Your task to perform on an android device: make emails show in primary in the gmail app Image 0: 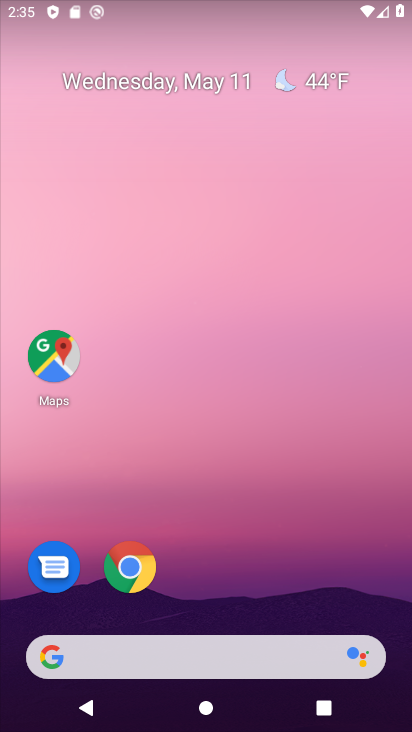
Step 0: drag from (267, 499) to (237, 46)
Your task to perform on an android device: make emails show in primary in the gmail app Image 1: 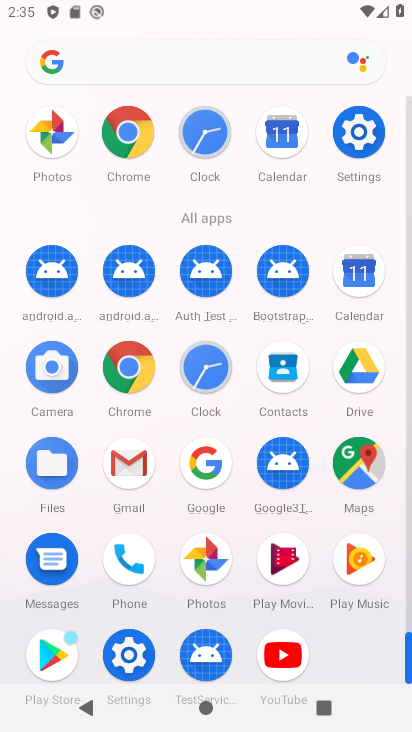
Step 1: drag from (4, 602) to (31, 296)
Your task to perform on an android device: make emails show in primary in the gmail app Image 2: 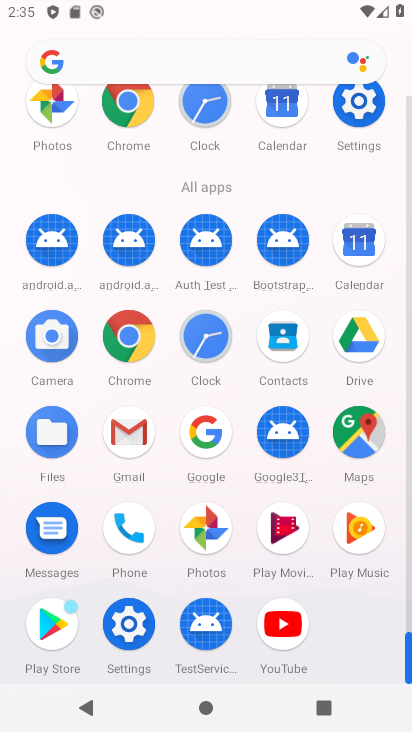
Step 2: click (125, 426)
Your task to perform on an android device: make emails show in primary in the gmail app Image 3: 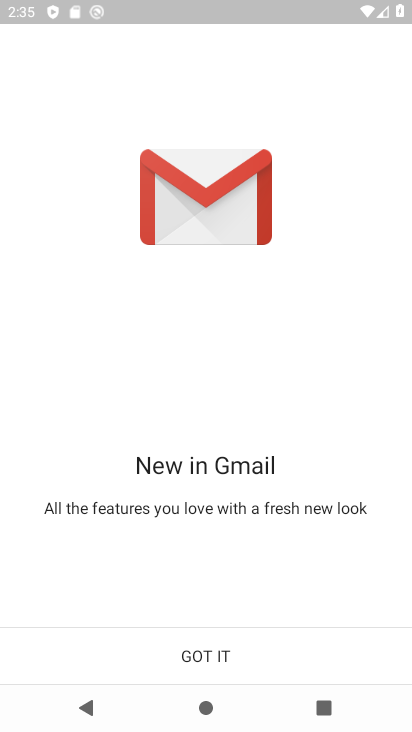
Step 3: click (204, 655)
Your task to perform on an android device: make emails show in primary in the gmail app Image 4: 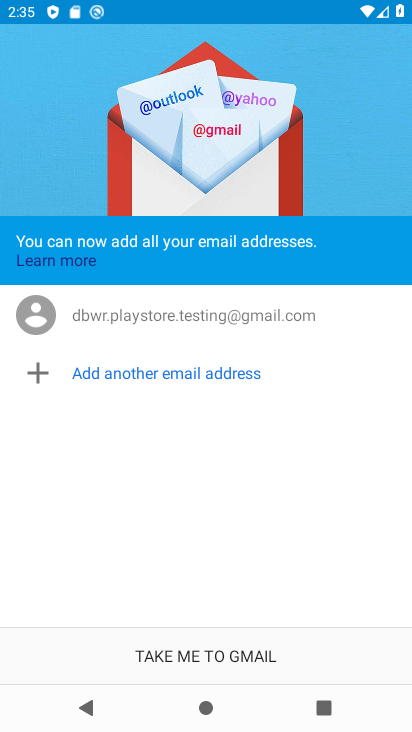
Step 4: click (201, 649)
Your task to perform on an android device: make emails show in primary in the gmail app Image 5: 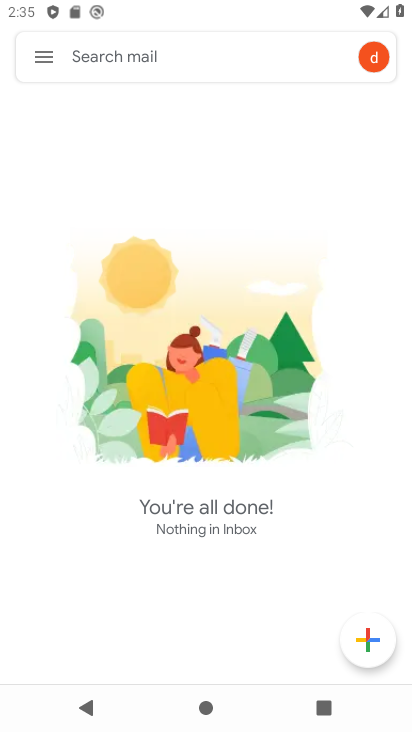
Step 5: click (43, 55)
Your task to perform on an android device: make emails show in primary in the gmail app Image 6: 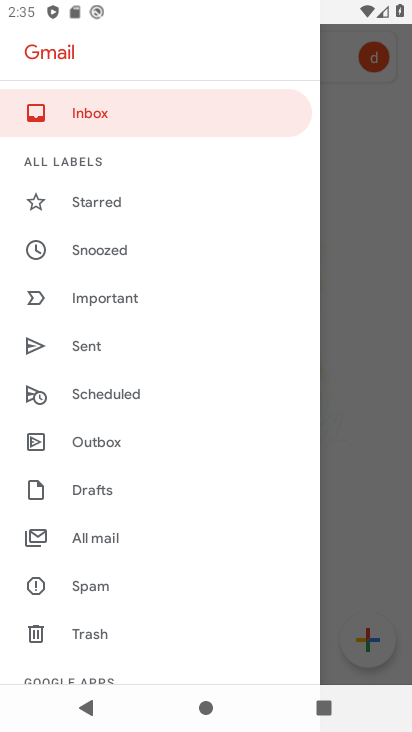
Step 6: drag from (141, 597) to (228, 156)
Your task to perform on an android device: make emails show in primary in the gmail app Image 7: 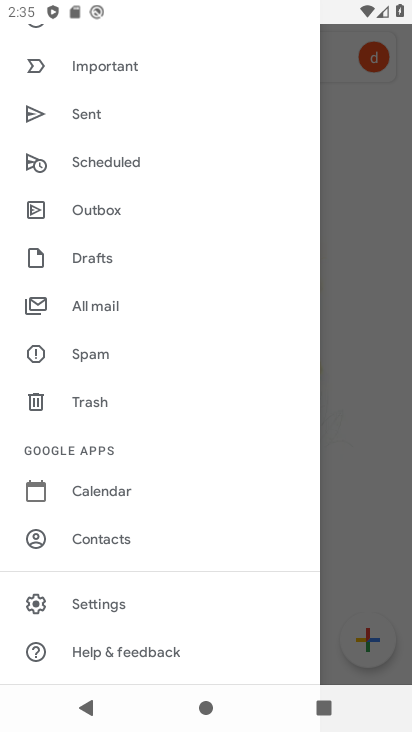
Step 7: drag from (137, 143) to (150, 507)
Your task to perform on an android device: make emails show in primary in the gmail app Image 8: 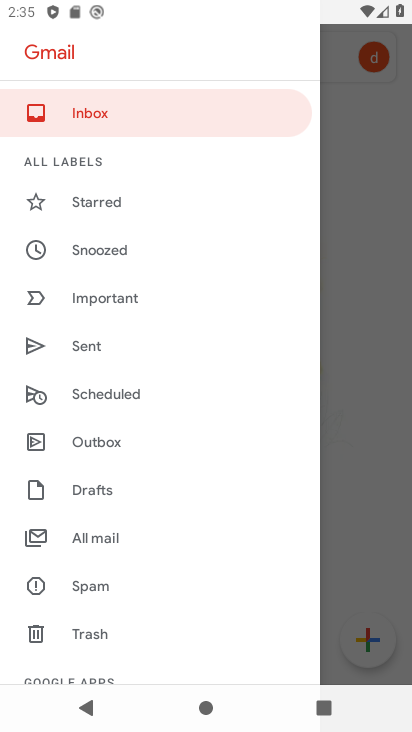
Step 8: drag from (172, 480) to (181, 297)
Your task to perform on an android device: make emails show in primary in the gmail app Image 9: 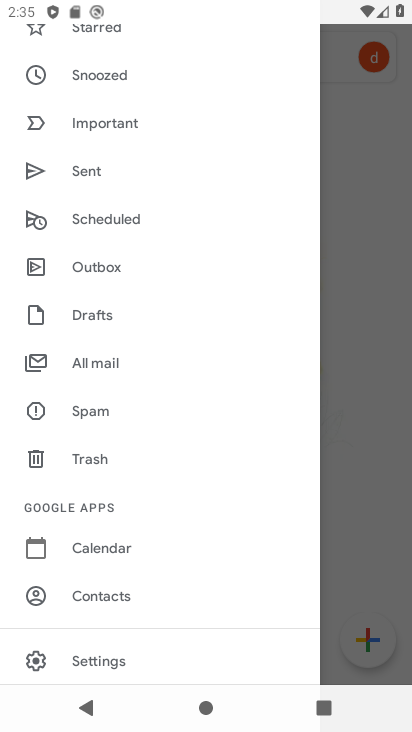
Step 9: drag from (171, 226) to (160, 495)
Your task to perform on an android device: make emails show in primary in the gmail app Image 10: 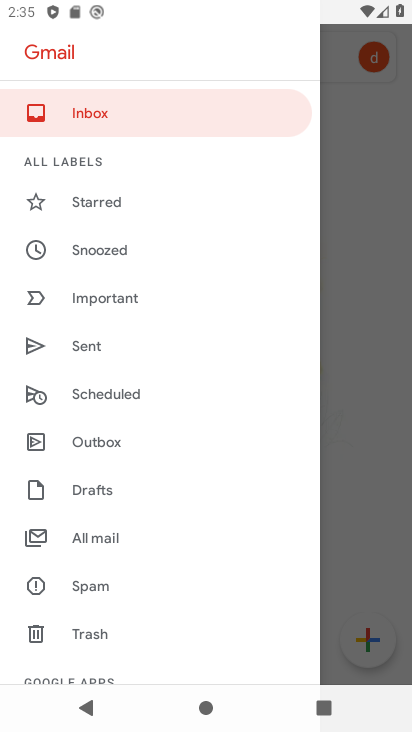
Step 10: drag from (137, 575) to (176, 124)
Your task to perform on an android device: make emails show in primary in the gmail app Image 11: 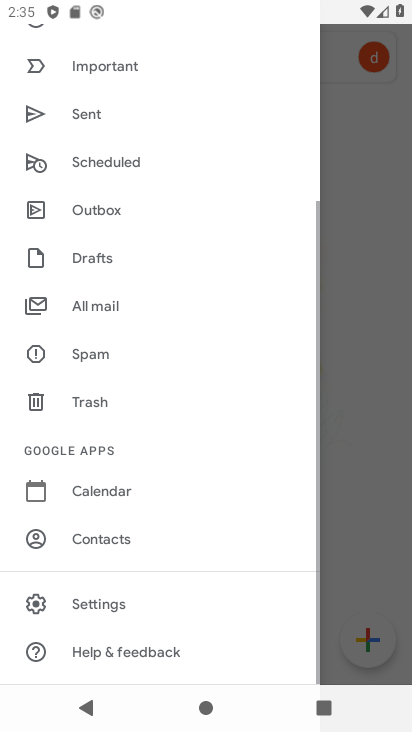
Step 11: click (86, 610)
Your task to perform on an android device: make emails show in primary in the gmail app Image 12: 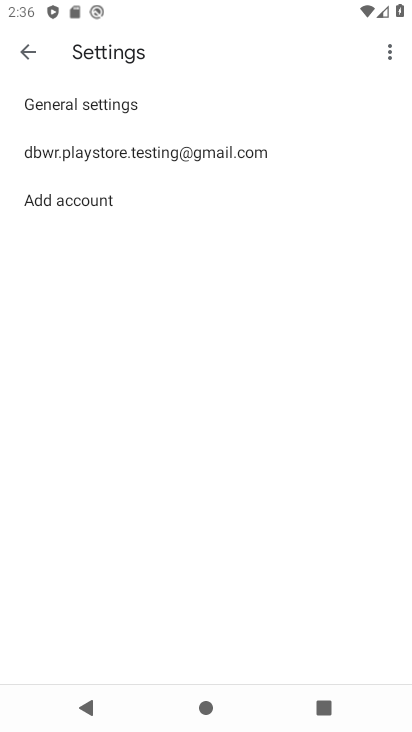
Step 12: click (108, 104)
Your task to perform on an android device: make emails show in primary in the gmail app Image 13: 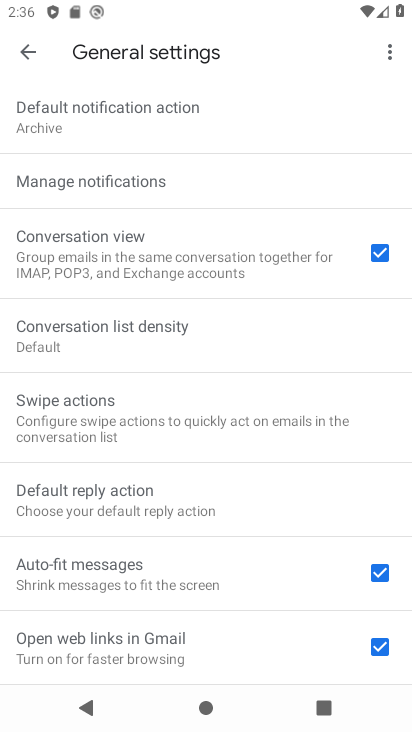
Step 13: drag from (143, 519) to (186, 163)
Your task to perform on an android device: make emails show in primary in the gmail app Image 14: 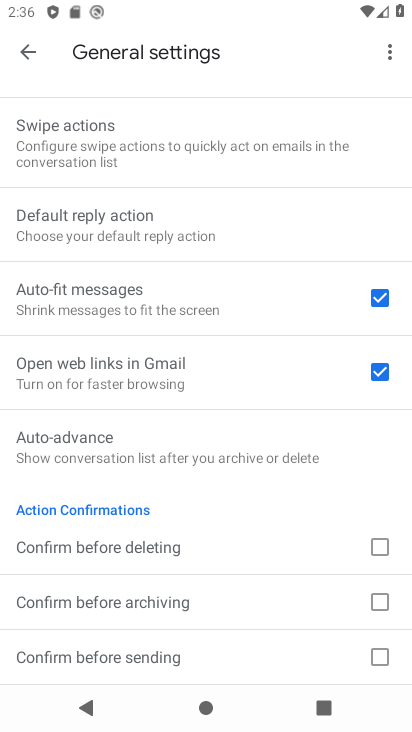
Step 14: drag from (194, 559) to (202, 123)
Your task to perform on an android device: make emails show in primary in the gmail app Image 15: 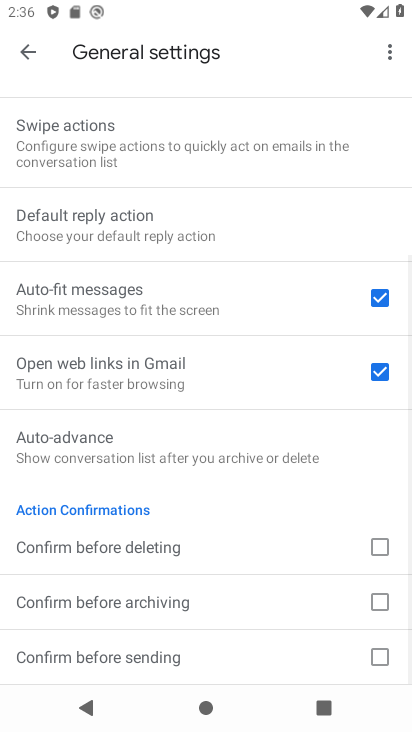
Step 15: drag from (178, 590) to (209, 73)
Your task to perform on an android device: make emails show in primary in the gmail app Image 16: 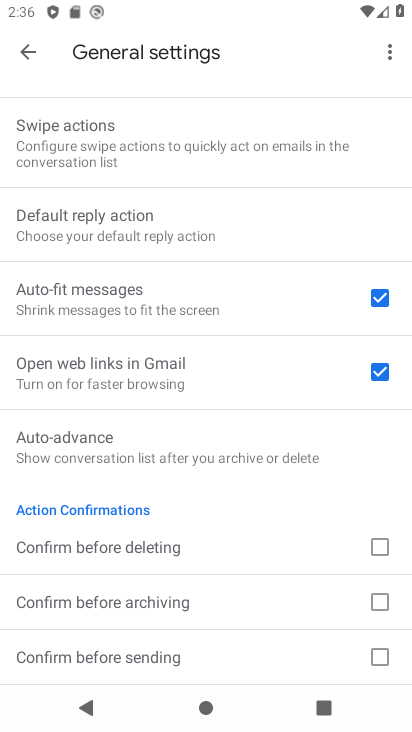
Step 16: drag from (171, 537) to (183, 146)
Your task to perform on an android device: make emails show in primary in the gmail app Image 17: 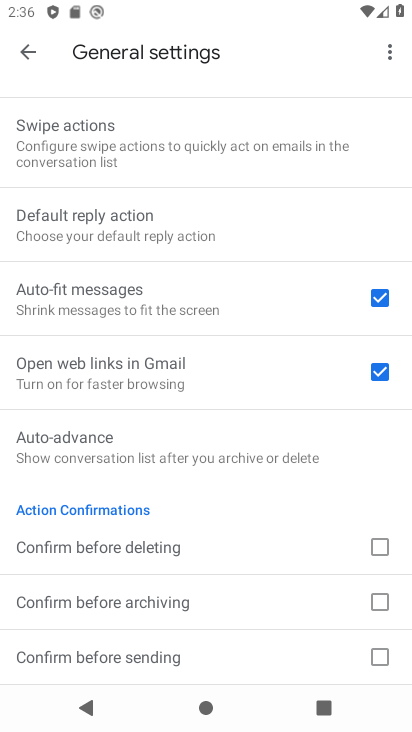
Step 17: drag from (203, 209) to (192, 657)
Your task to perform on an android device: make emails show in primary in the gmail app Image 18: 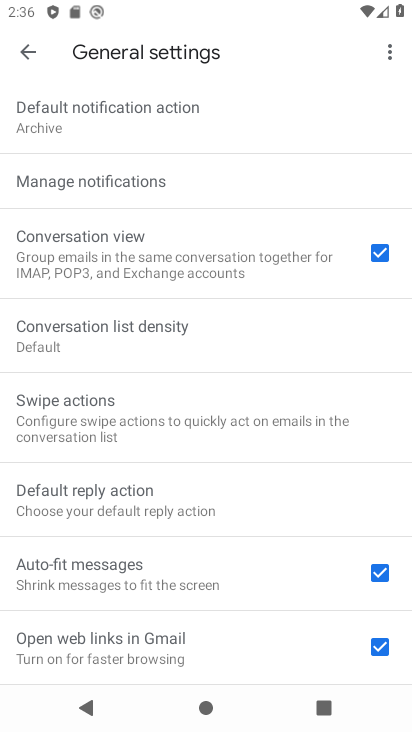
Step 18: drag from (218, 182) to (210, 474)
Your task to perform on an android device: make emails show in primary in the gmail app Image 19: 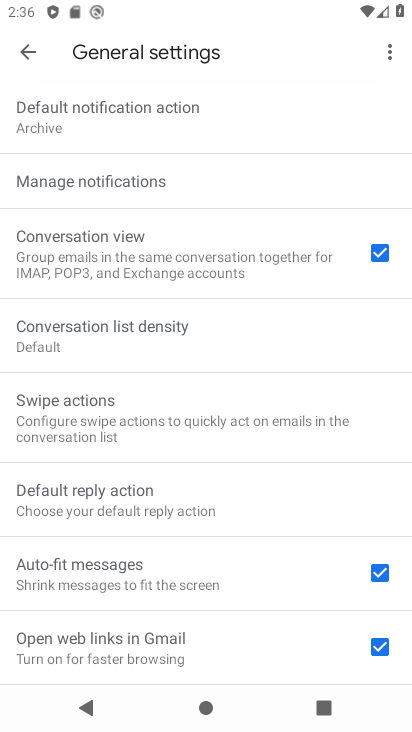
Step 19: click (142, 165)
Your task to perform on an android device: make emails show in primary in the gmail app Image 20: 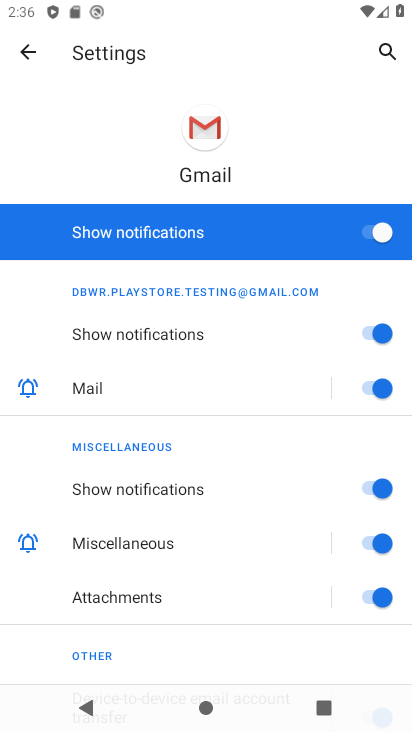
Step 20: click (195, 564)
Your task to perform on an android device: make emails show in primary in the gmail app Image 21: 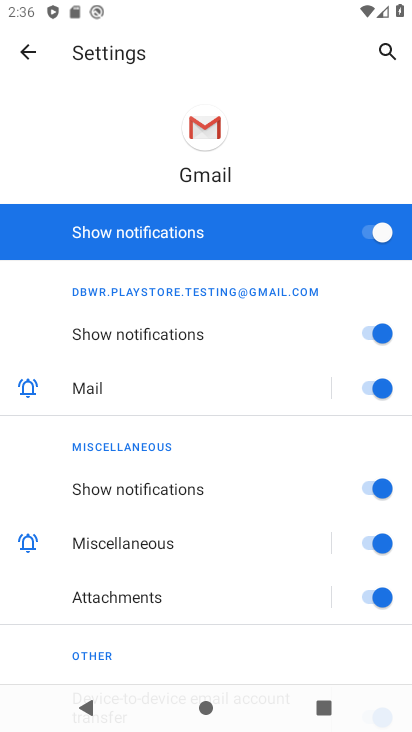
Step 21: click (13, 50)
Your task to perform on an android device: make emails show in primary in the gmail app Image 22: 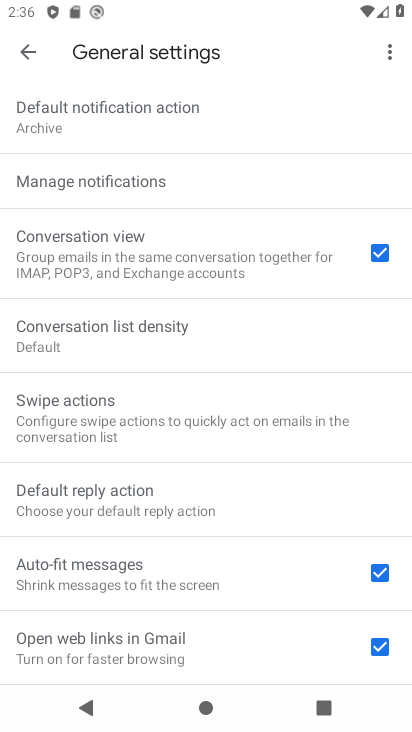
Step 22: drag from (165, 141) to (162, 555)
Your task to perform on an android device: make emails show in primary in the gmail app Image 23: 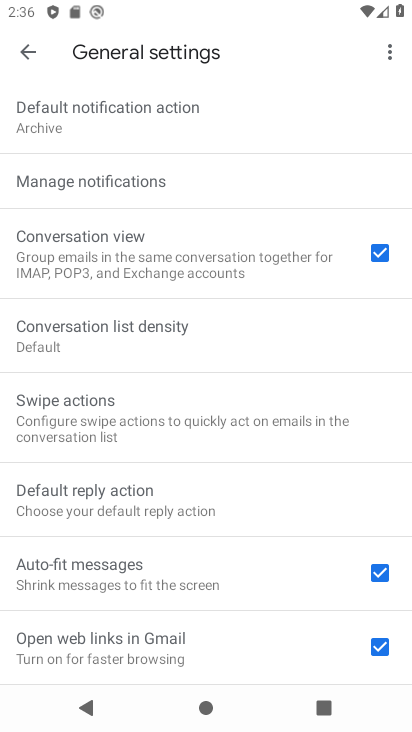
Step 23: click (33, 49)
Your task to perform on an android device: make emails show in primary in the gmail app Image 24: 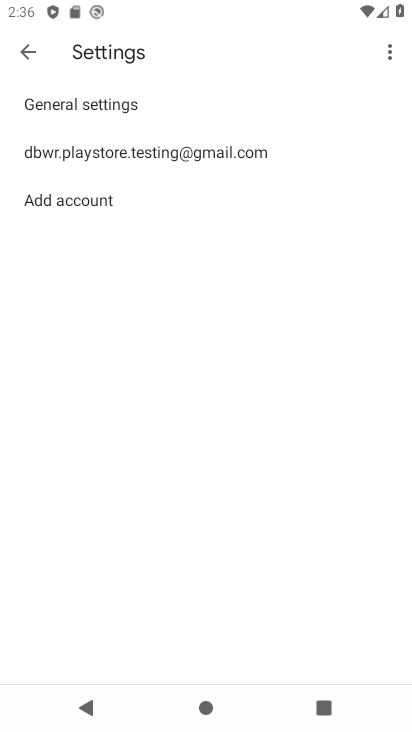
Step 24: click (112, 156)
Your task to perform on an android device: make emails show in primary in the gmail app Image 25: 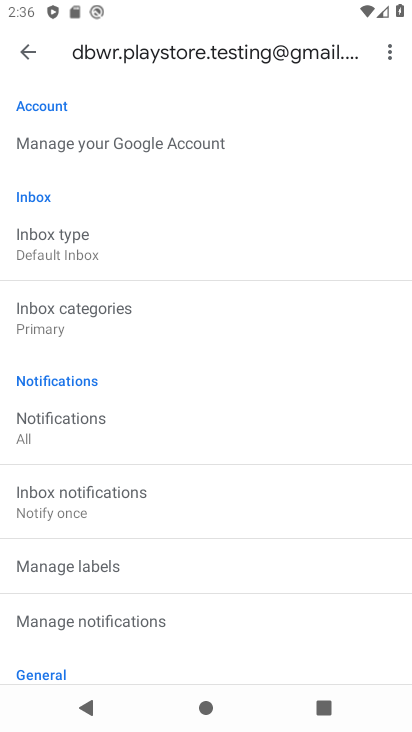
Step 25: click (76, 321)
Your task to perform on an android device: make emails show in primary in the gmail app Image 26: 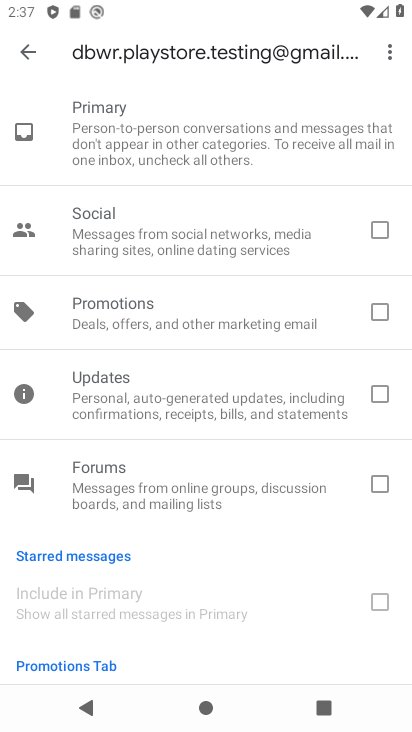
Step 26: drag from (179, 109) to (198, 231)
Your task to perform on an android device: make emails show in primary in the gmail app Image 27: 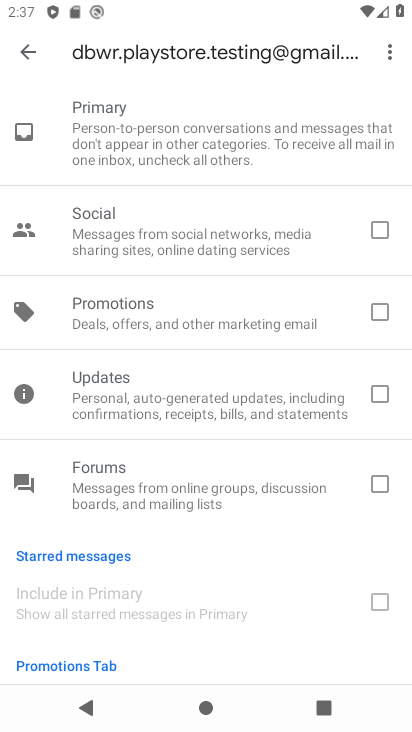
Step 27: click (30, 39)
Your task to perform on an android device: make emails show in primary in the gmail app Image 28: 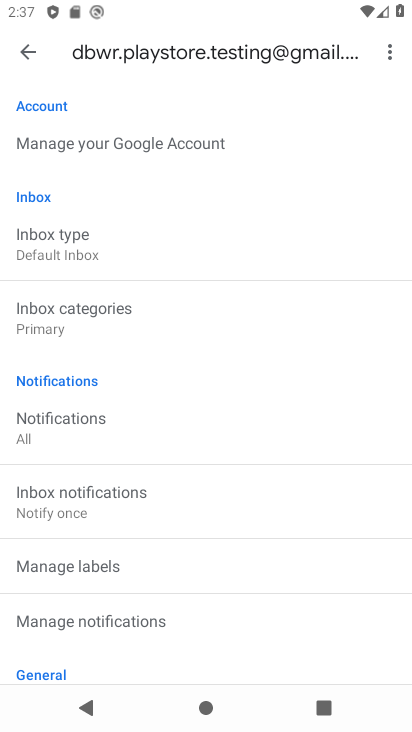
Step 28: task complete